Your task to perform on an android device: Clear the cart on costco. Add bose soundlink mini to the cart on costco, then select checkout. Image 0: 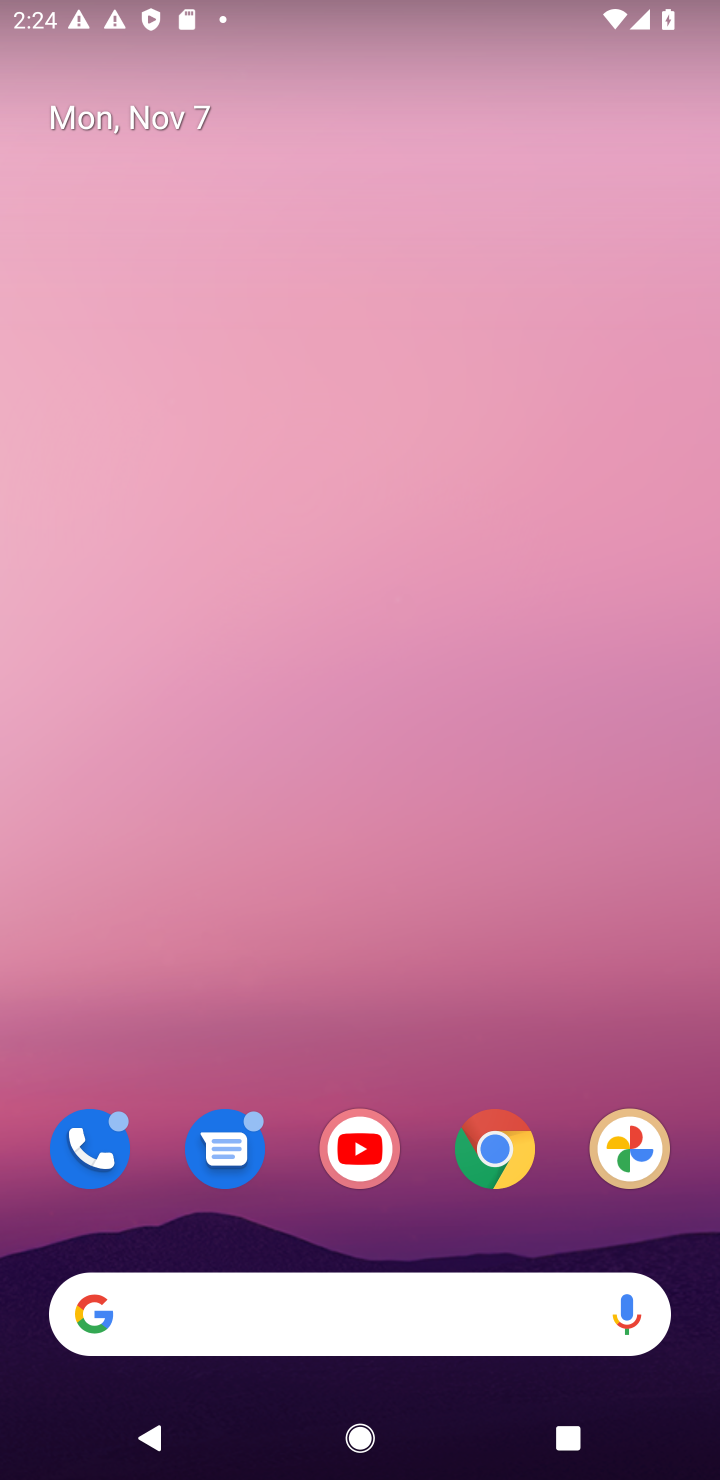
Step 0: click (515, 1132)
Your task to perform on an android device: Clear the cart on costco. Add bose soundlink mini to the cart on costco, then select checkout. Image 1: 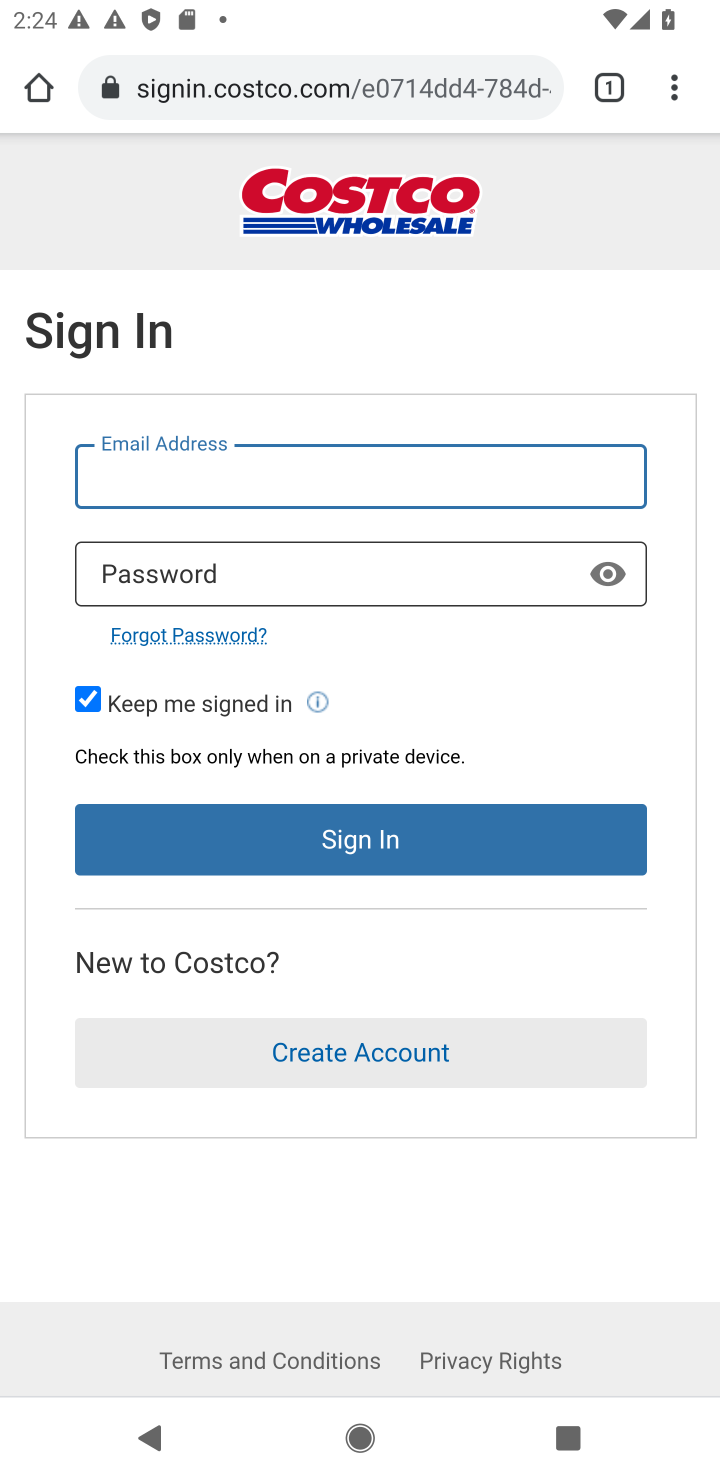
Step 1: click (285, 81)
Your task to perform on an android device: Clear the cart on costco. Add bose soundlink mini to the cart on costco, then select checkout. Image 2: 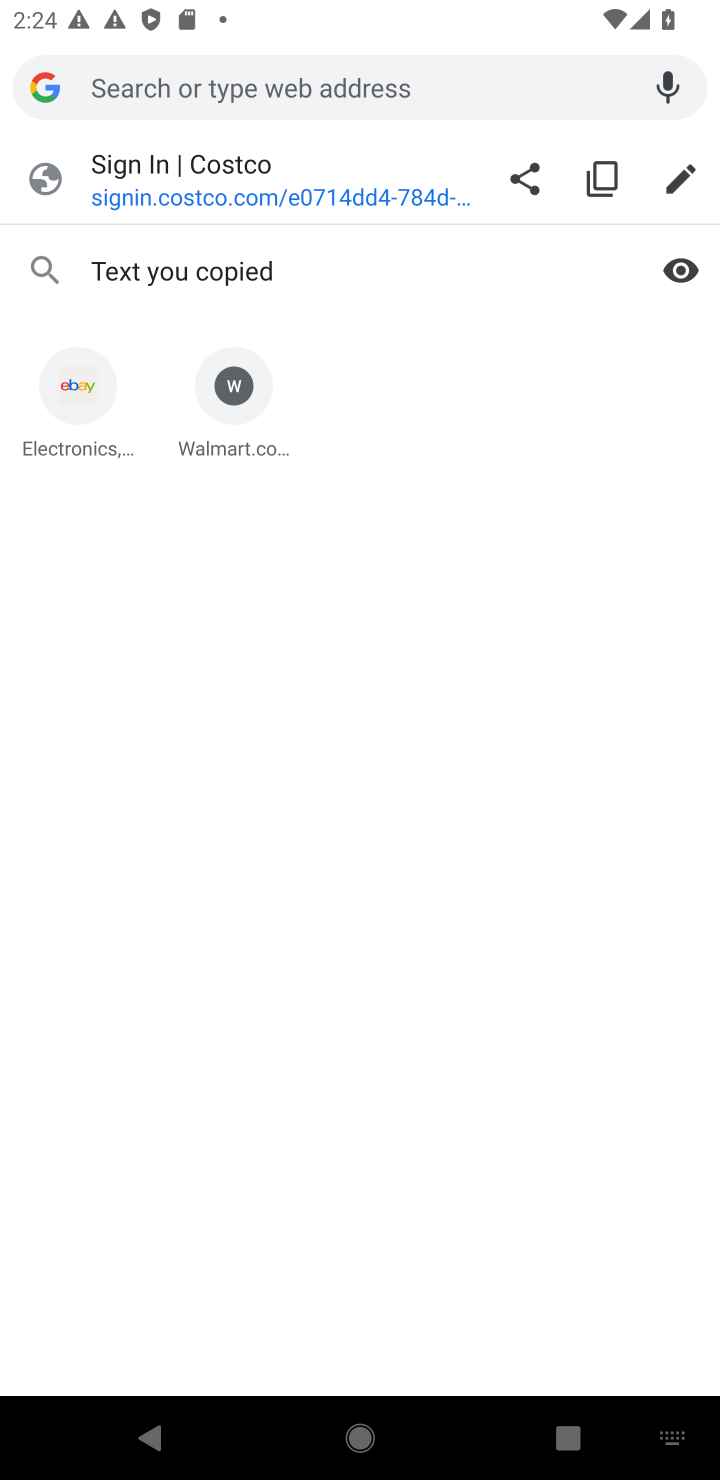
Step 2: type "costco"
Your task to perform on an android device: Clear the cart on costco. Add bose soundlink mini to the cart on costco, then select checkout. Image 3: 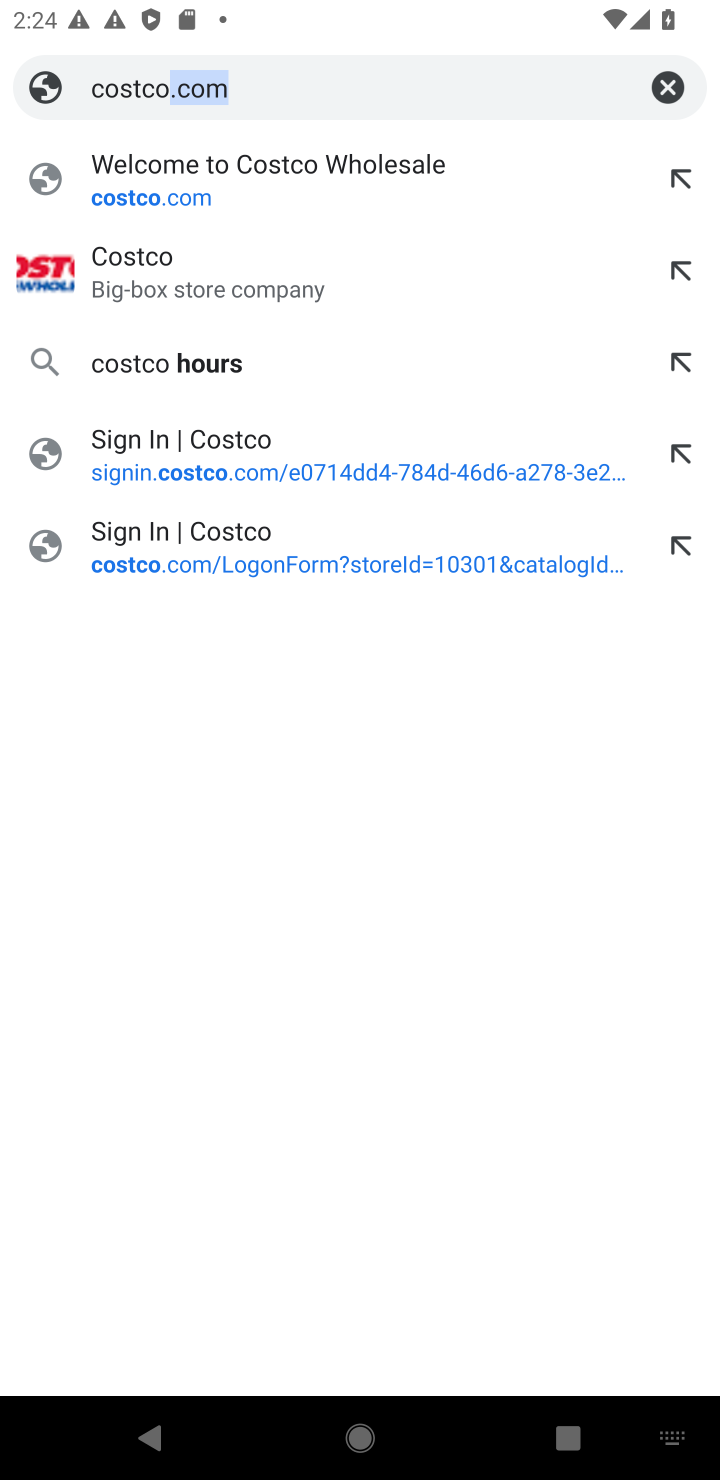
Step 3: click (127, 252)
Your task to perform on an android device: Clear the cart on costco. Add bose soundlink mini to the cart on costco, then select checkout. Image 4: 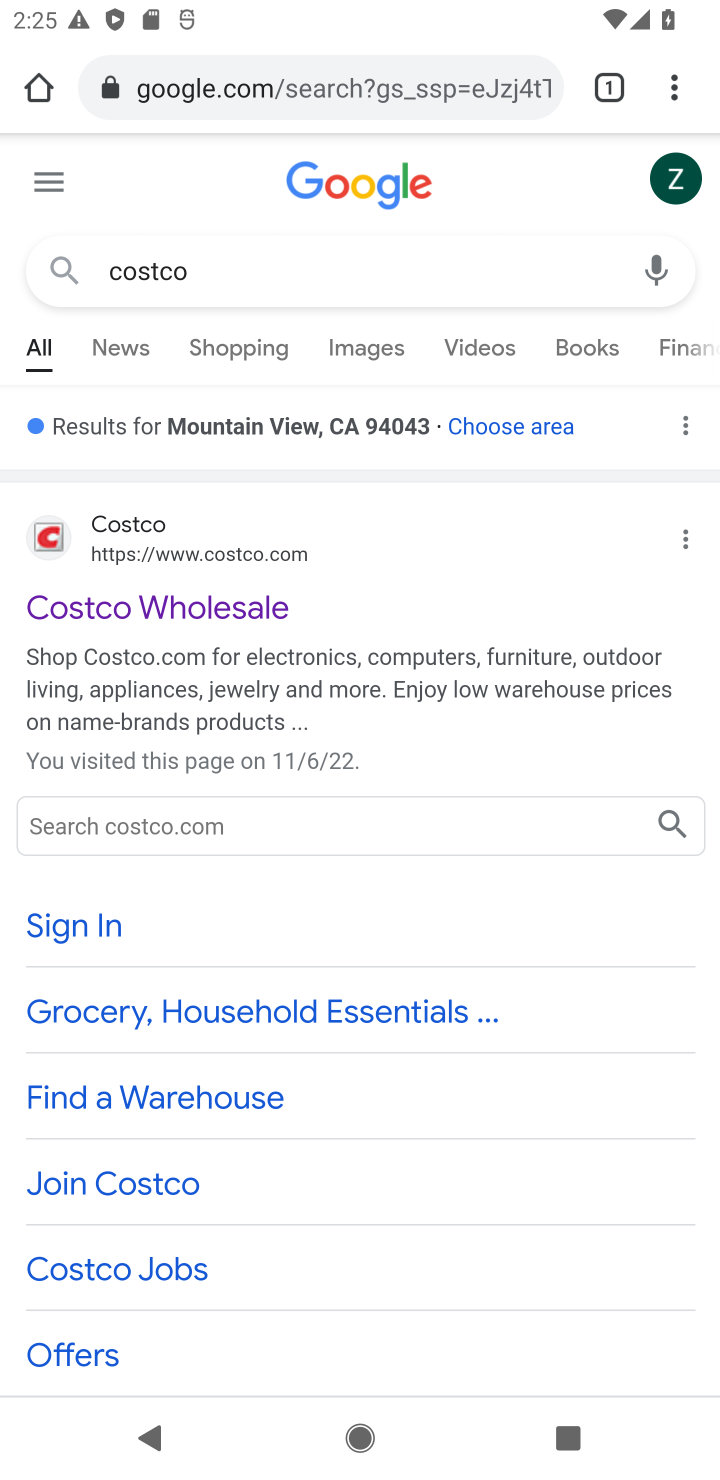
Step 4: click (127, 607)
Your task to perform on an android device: Clear the cart on costco. Add bose soundlink mini to the cart on costco, then select checkout. Image 5: 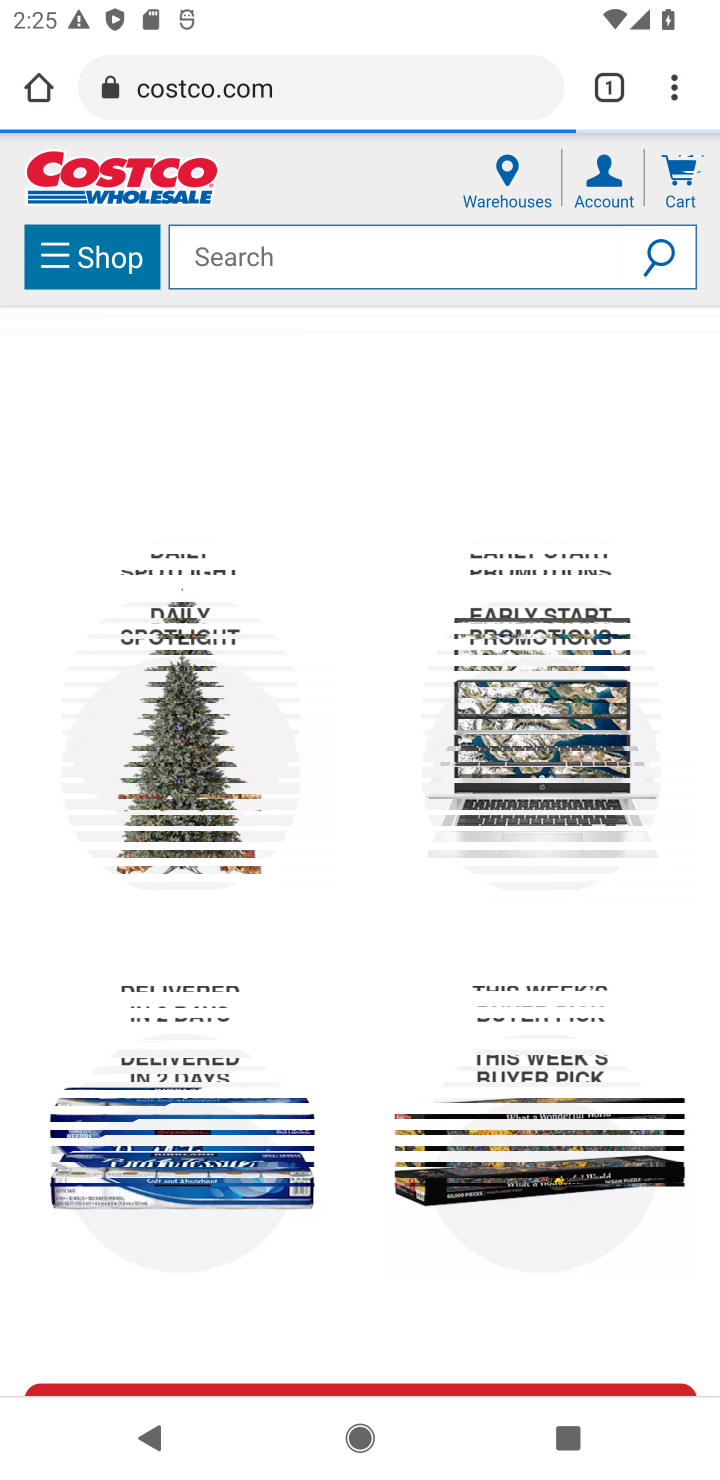
Step 5: click (211, 252)
Your task to perform on an android device: Clear the cart on costco. Add bose soundlink mini to the cart on costco, then select checkout. Image 6: 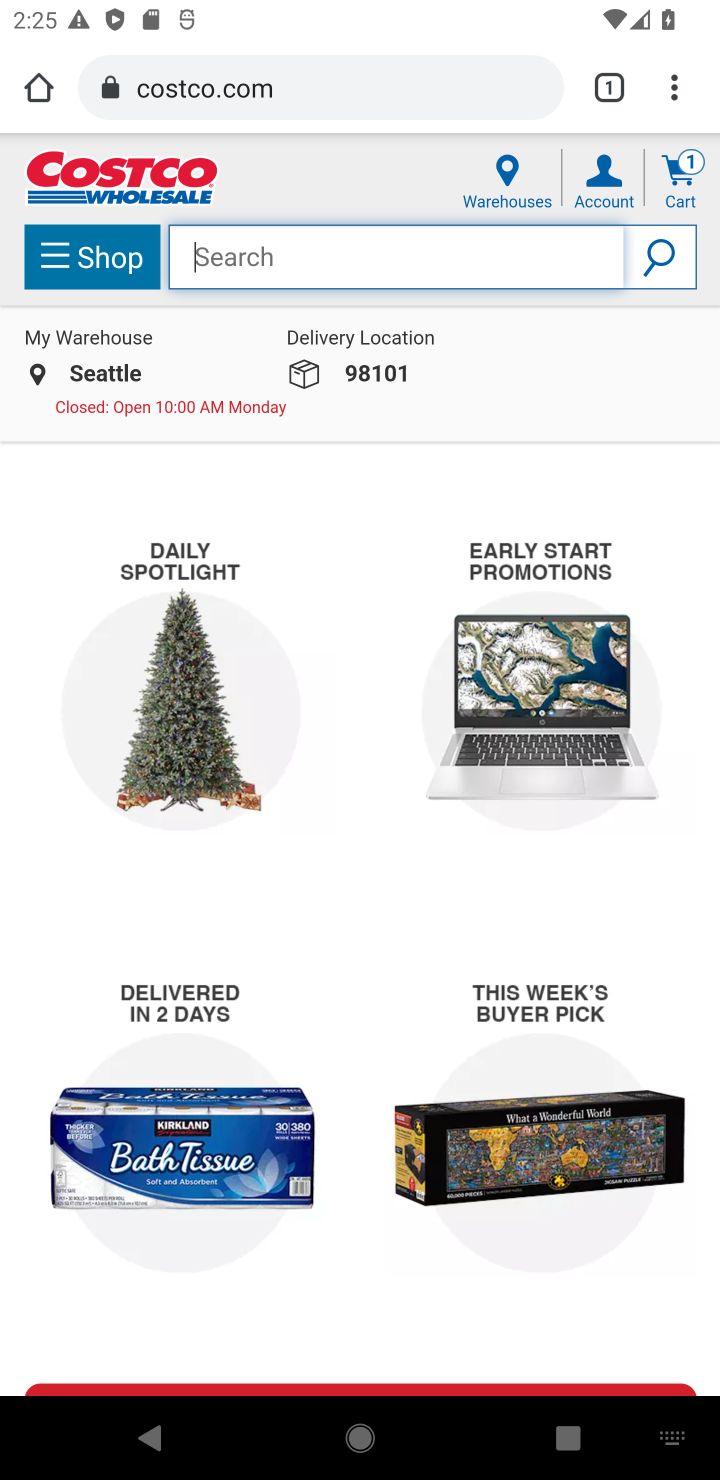
Step 6: type "bose soundlink mini "
Your task to perform on an android device: Clear the cart on costco. Add bose soundlink mini to the cart on costco, then select checkout. Image 7: 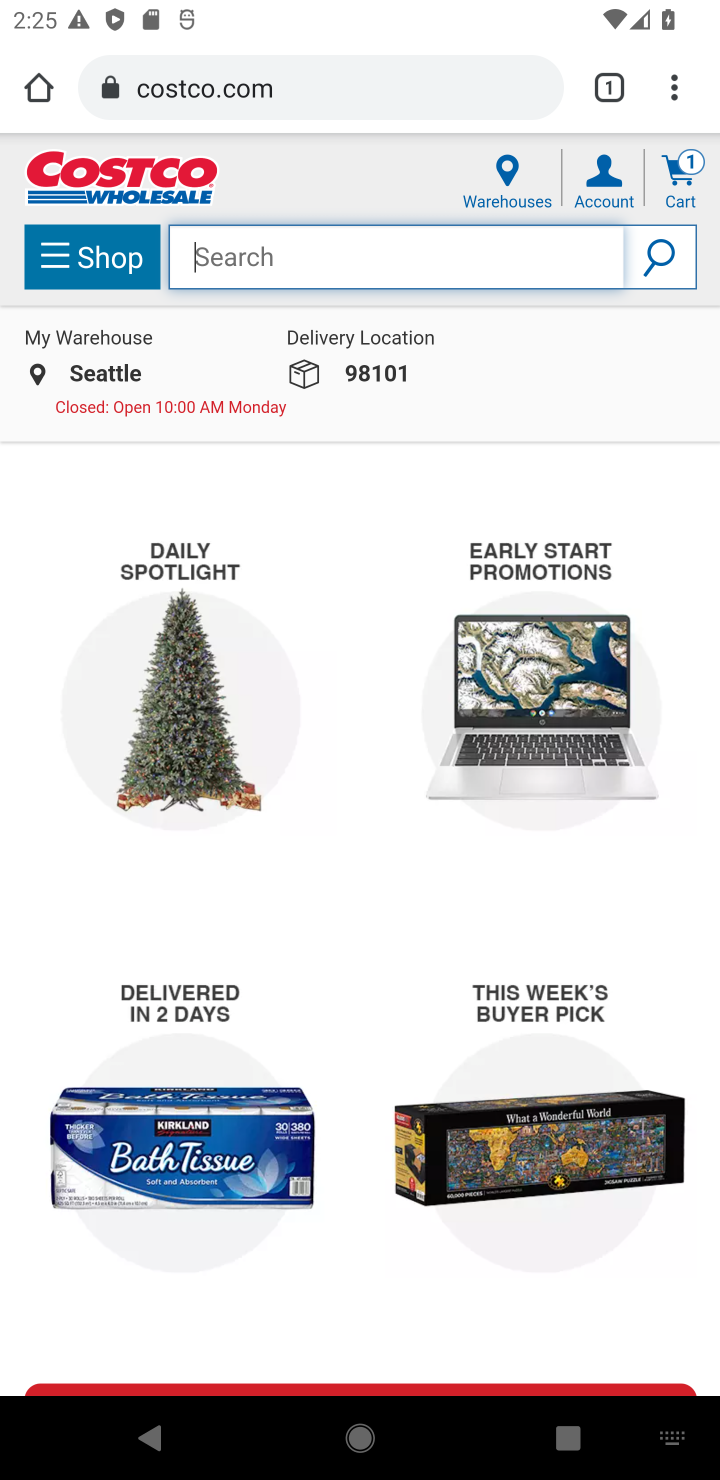
Step 7: click (677, 185)
Your task to perform on an android device: Clear the cart on costco. Add bose soundlink mini to the cart on costco, then select checkout. Image 8: 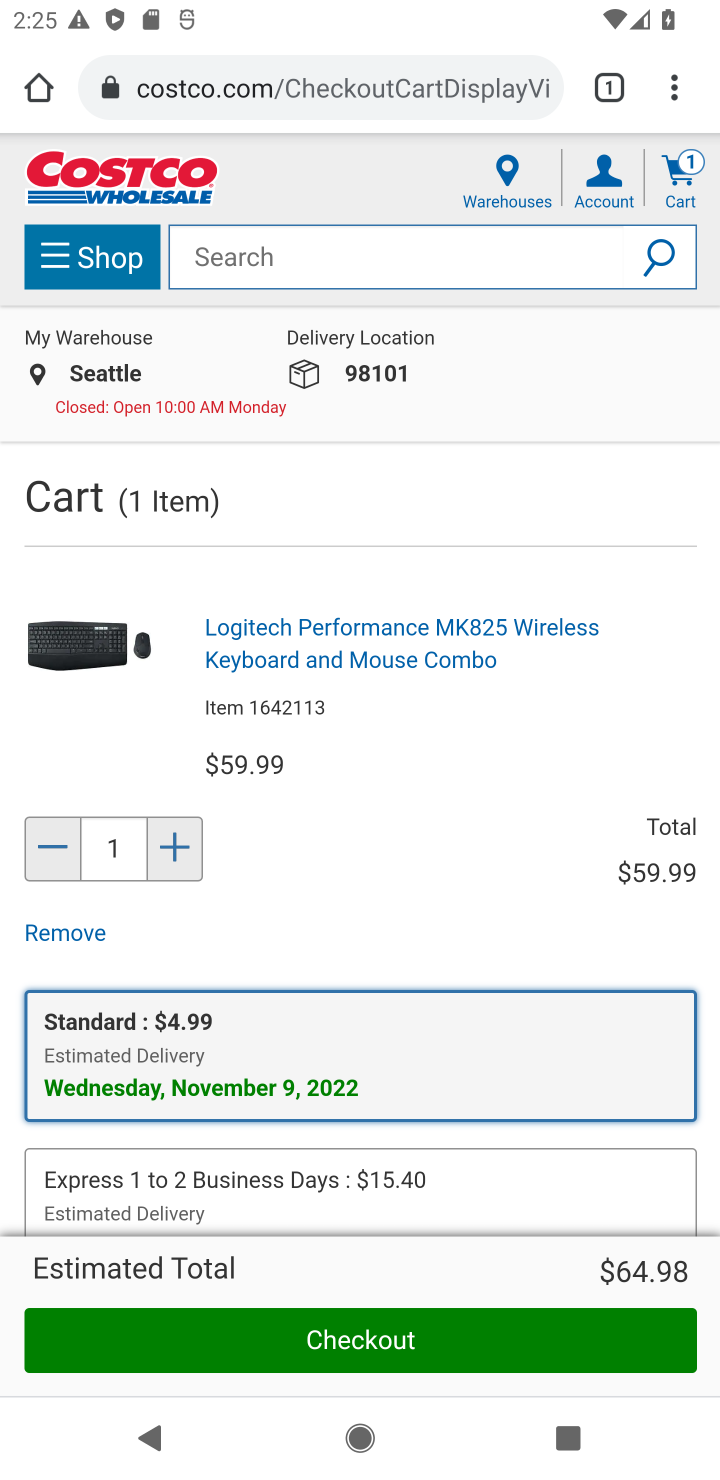
Step 8: click (339, 255)
Your task to perform on an android device: Clear the cart on costco. Add bose soundlink mini to the cart on costco, then select checkout. Image 9: 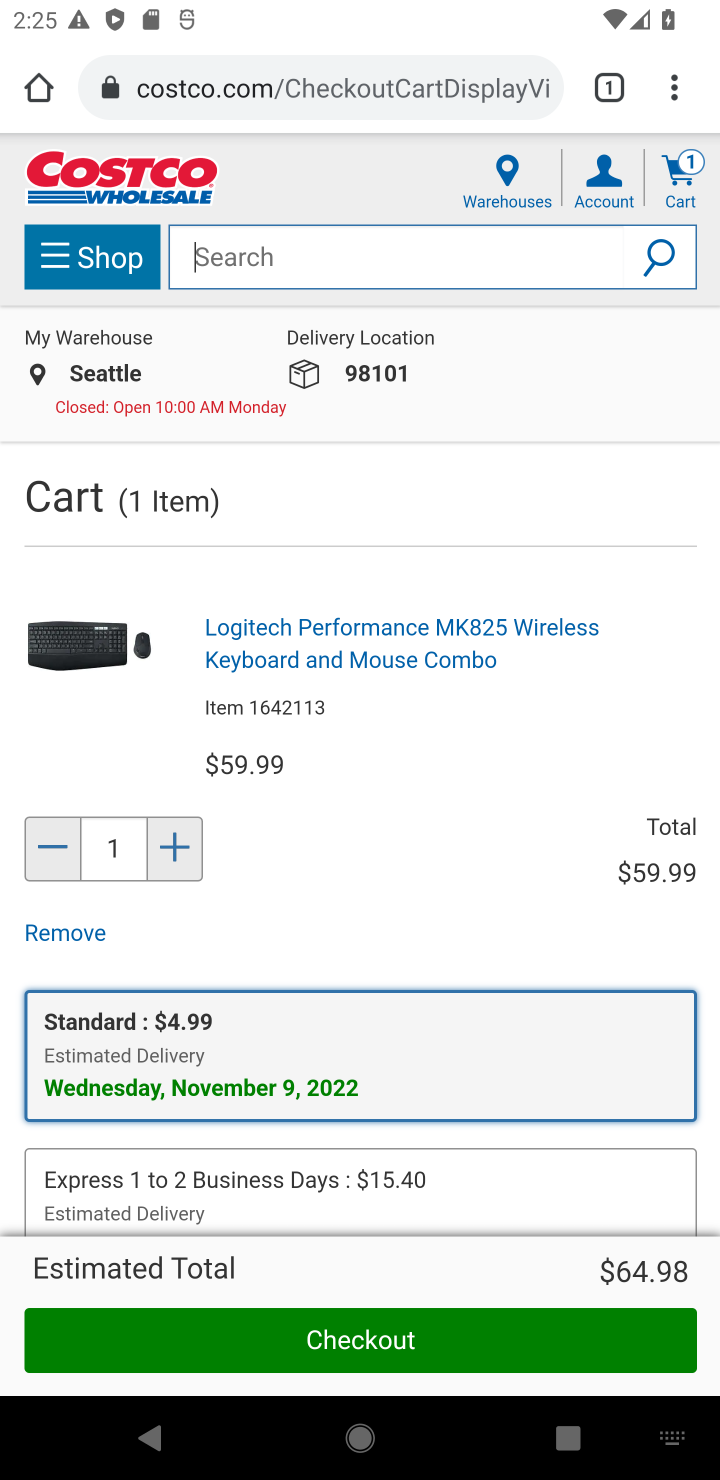
Step 9: click (243, 263)
Your task to perform on an android device: Clear the cart on costco. Add bose soundlink mini to the cart on costco, then select checkout. Image 10: 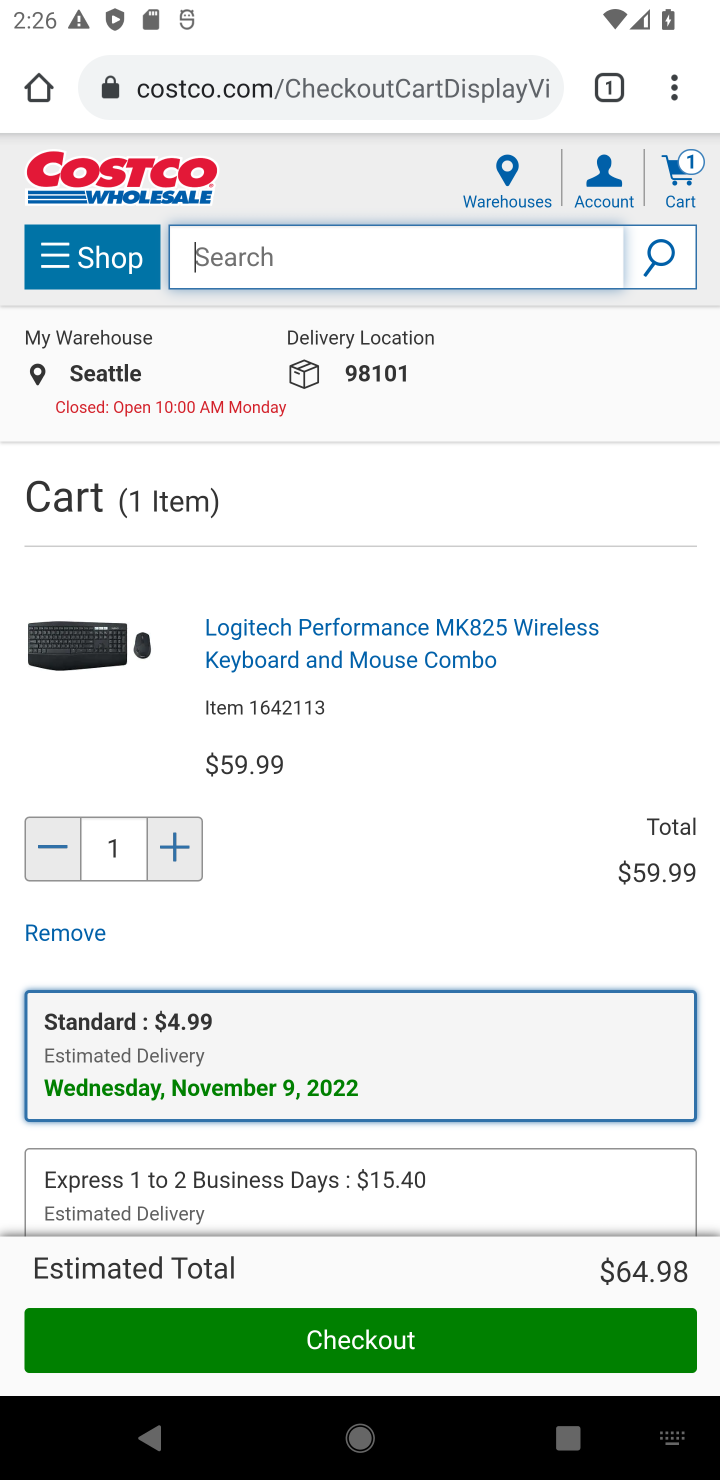
Step 10: click (54, 928)
Your task to perform on an android device: Clear the cart on costco. Add bose soundlink mini to the cart on costco, then select checkout. Image 11: 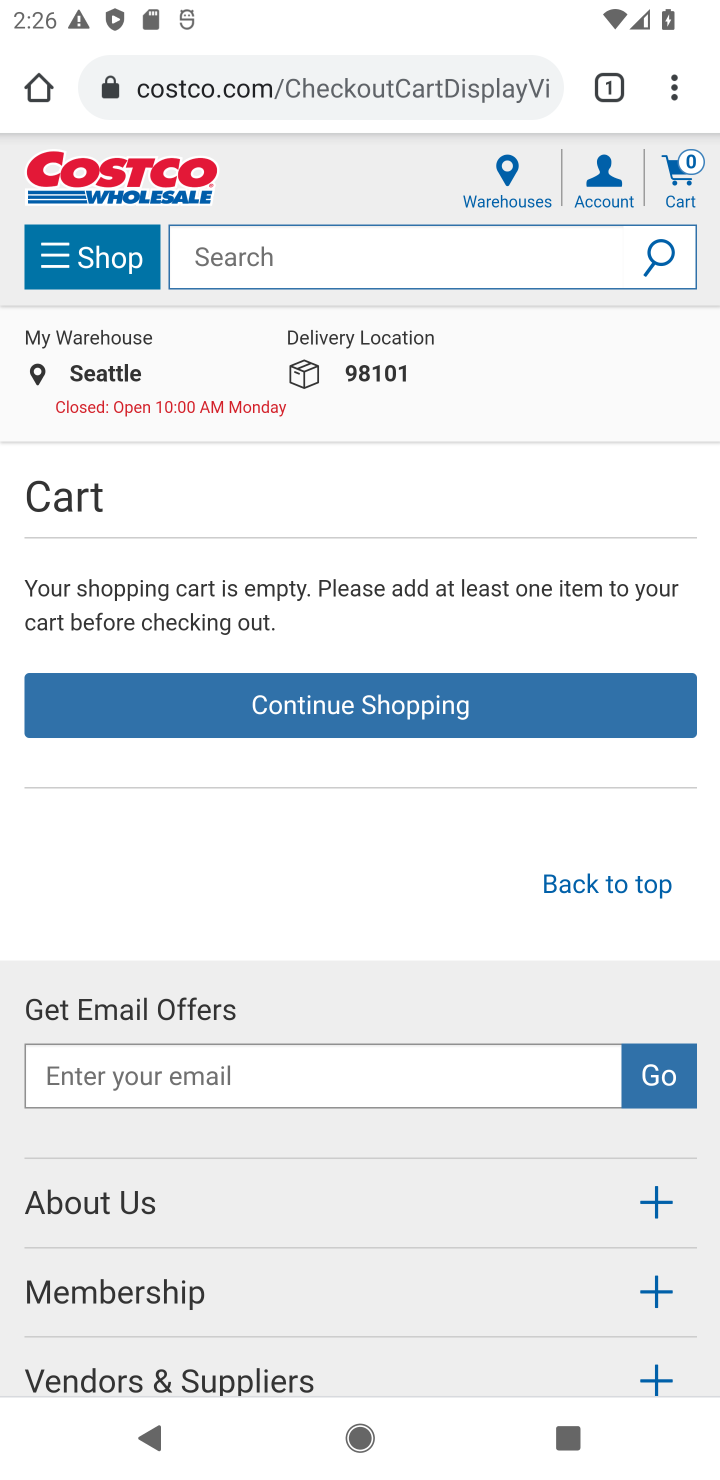
Step 11: click (287, 268)
Your task to perform on an android device: Clear the cart on costco. Add bose soundlink mini to the cart on costco, then select checkout. Image 12: 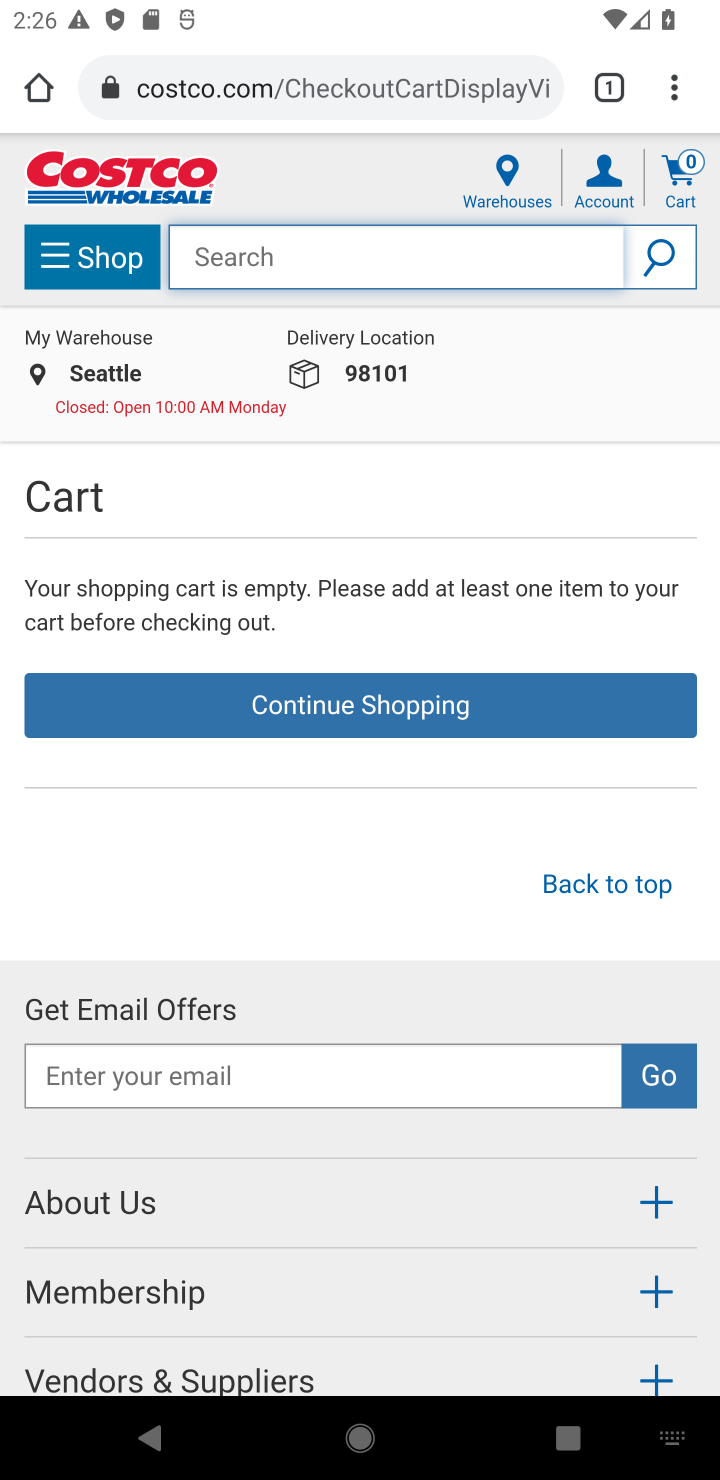
Step 12: type "bose soundlink mini "
Your task to perform on an android device: Clear the cart on costco. Add bose soundlink mini to the cart on costco, then select checkout. Image 13: 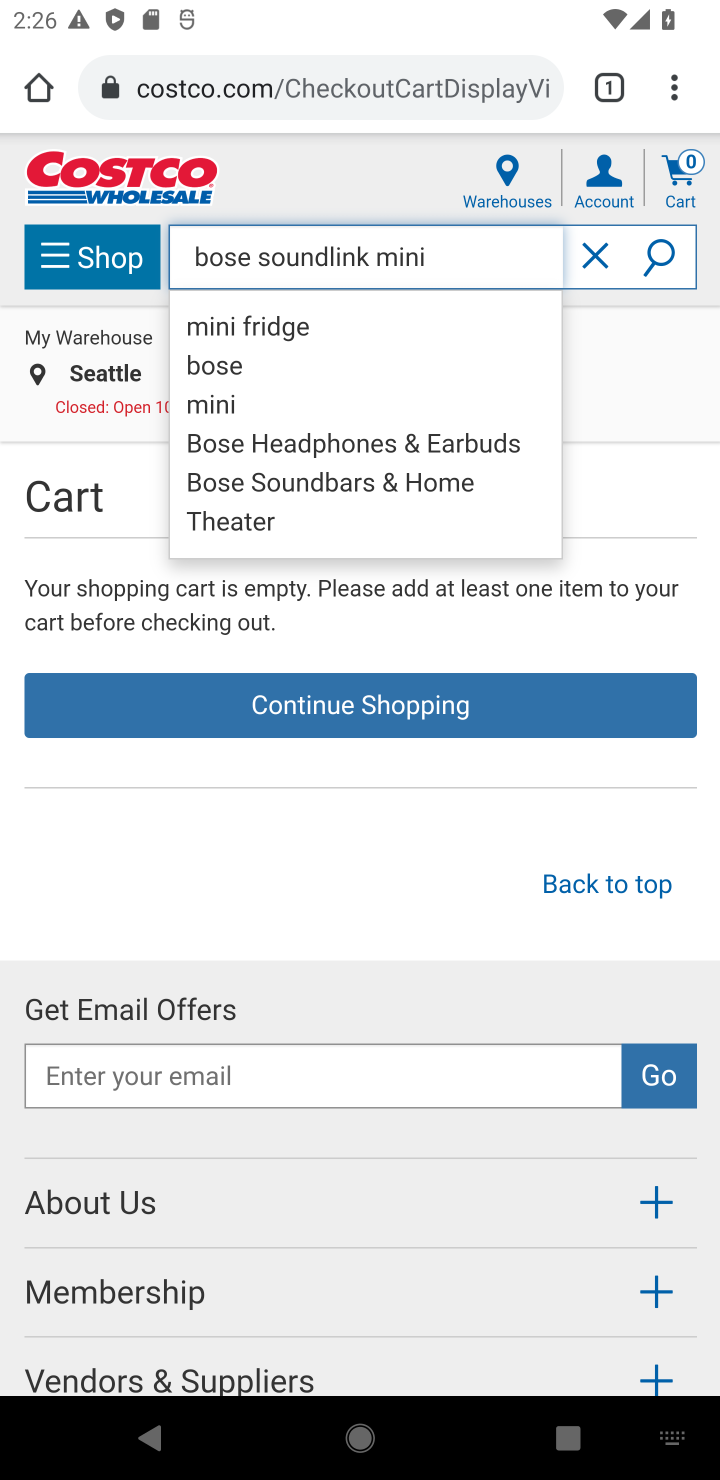
Step 13: click (660, 250)
Your task to perform on an android device: Clear the cart on costco. Add bose soundlink mini to the cart on costco, then select checkout. Image 14: 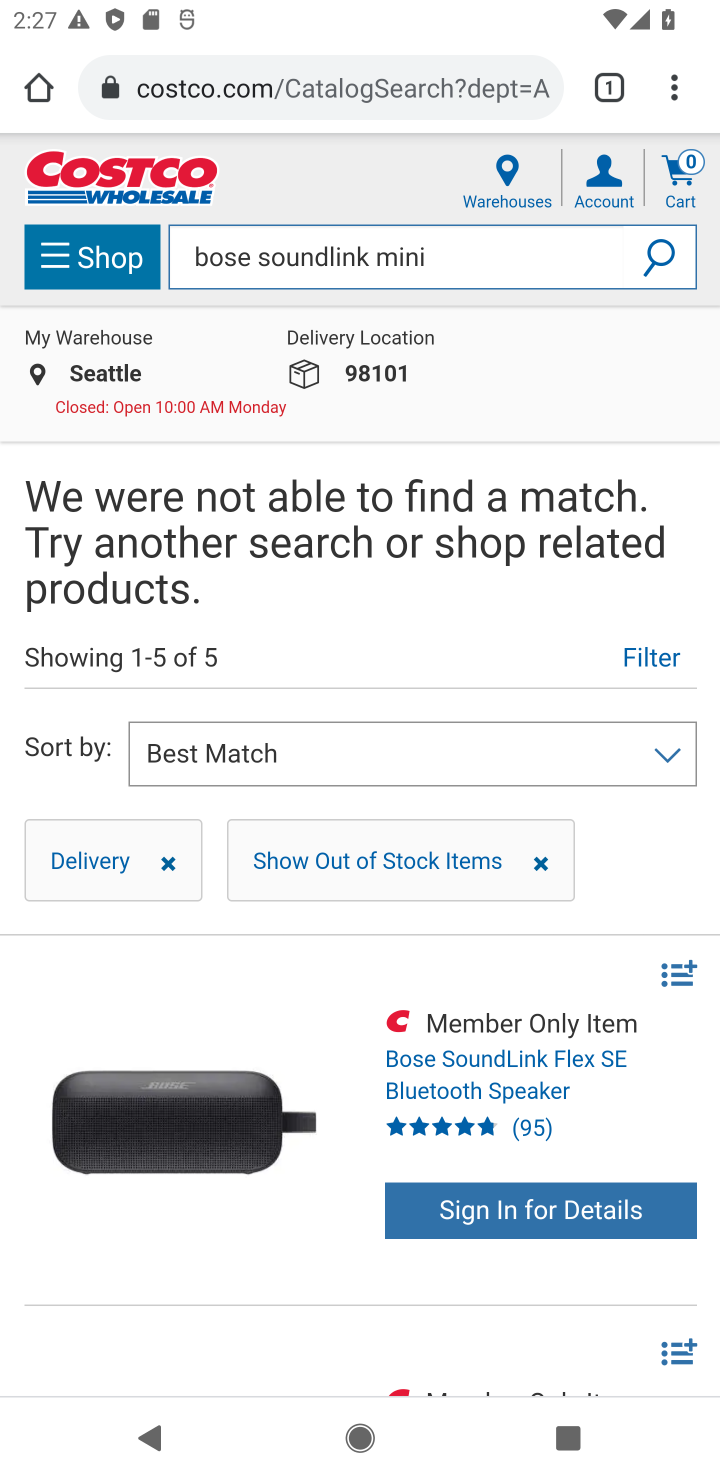
Step 14: drag from (298, 1053) to (298, 157)
Your task to perform on an android device: Clear the cart on costco. Add bose soundlink mini to the cart on costco, then select checkout. Image 15: 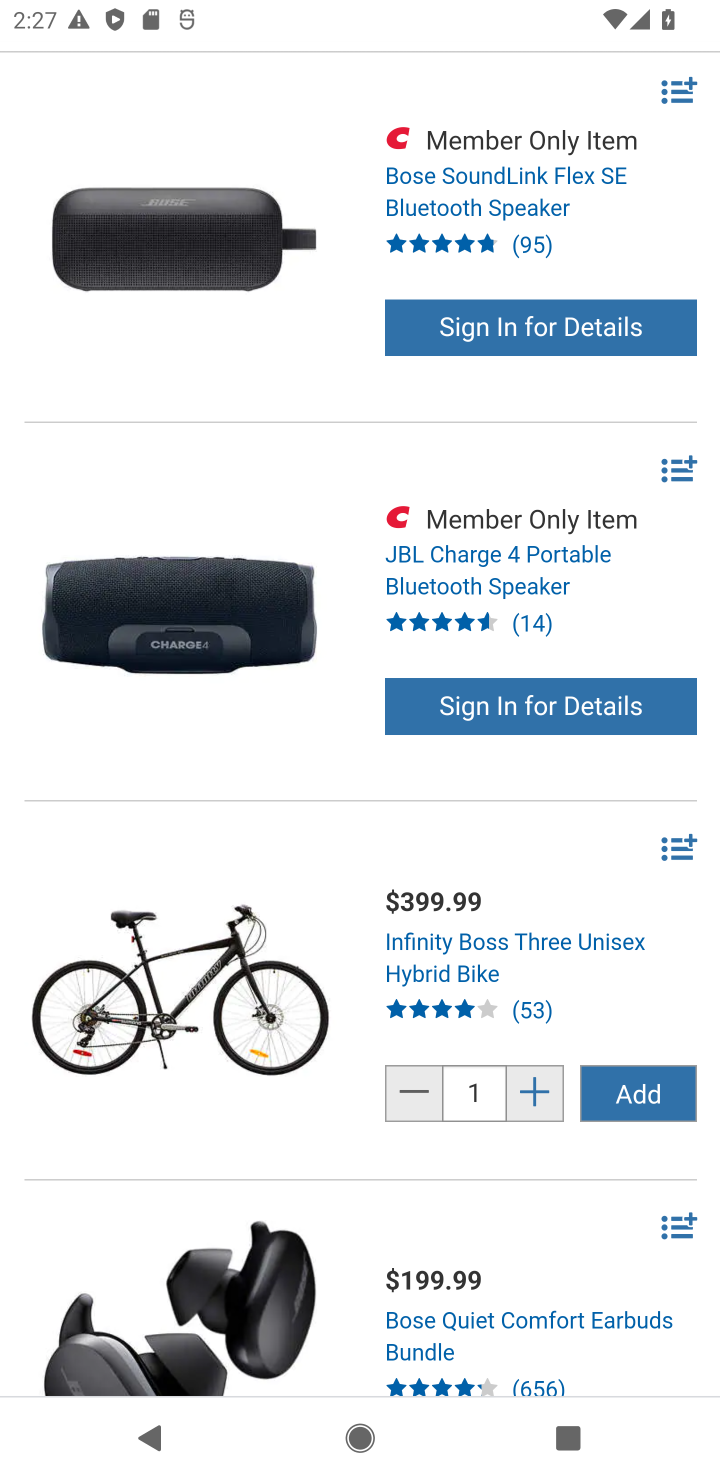
Step 15: click (272, 585)
Your task to perform on an android device: Clear the cart on costco. Add bose soundlink mini to the cart on costco, then select checkout. Image 16: 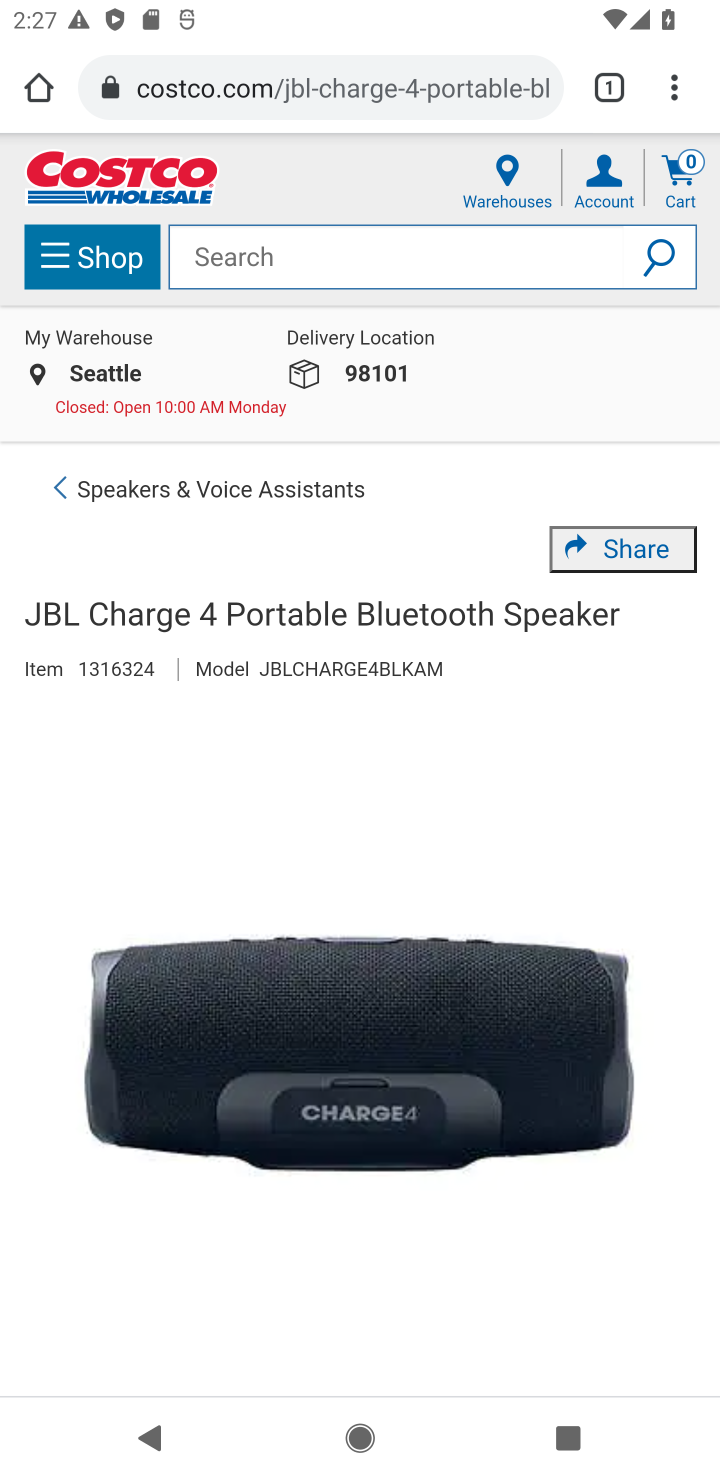
Step 16: drag from (237, 1168) to (161, 599)
Your task to perform on an android device: Clear the cart on costco. Add bose soundlink mini to the cart on costco, then select checkout. Image 17: 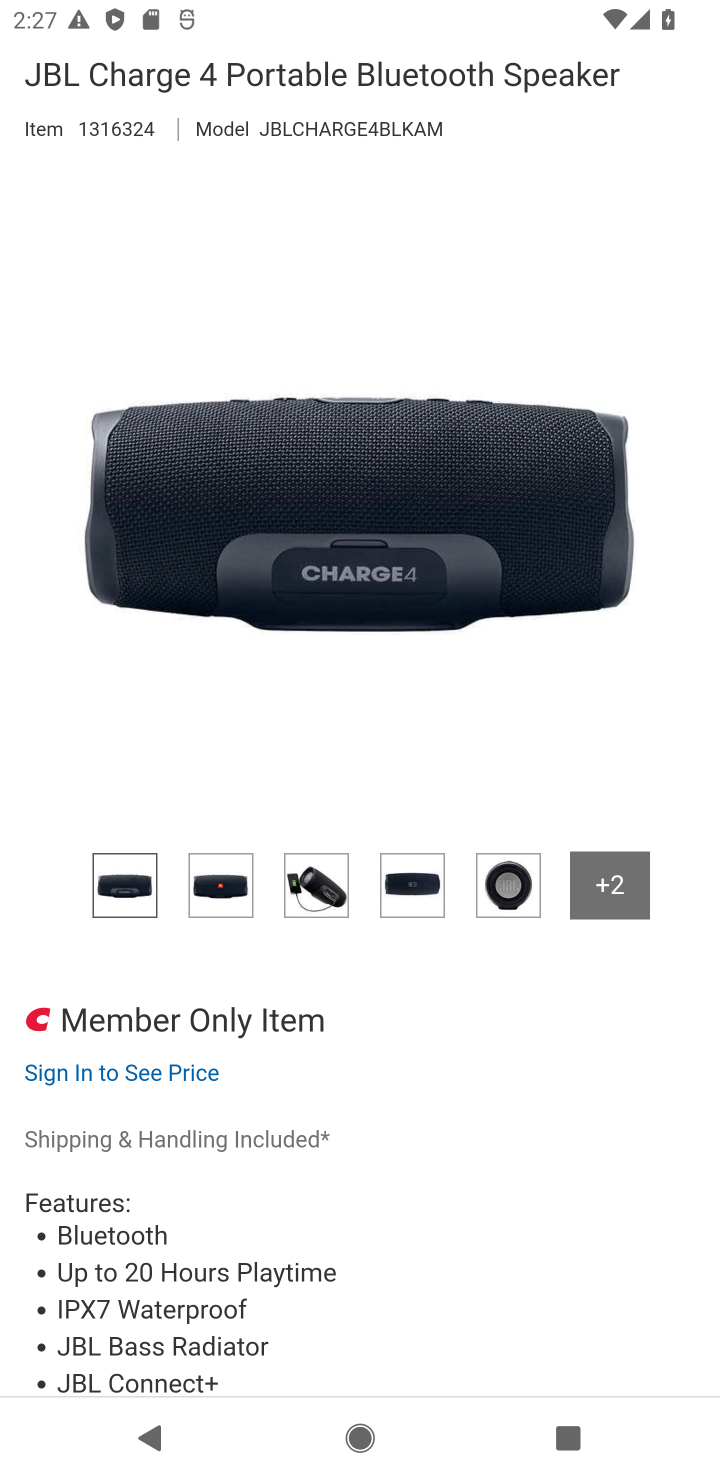
Step 17: drag from (370, 1039) to (398, 425)
Your task to perform on an android device: Clear the cart on costco. Add bose soundlink mini to the cart on costco, then select checkout. Image 18: 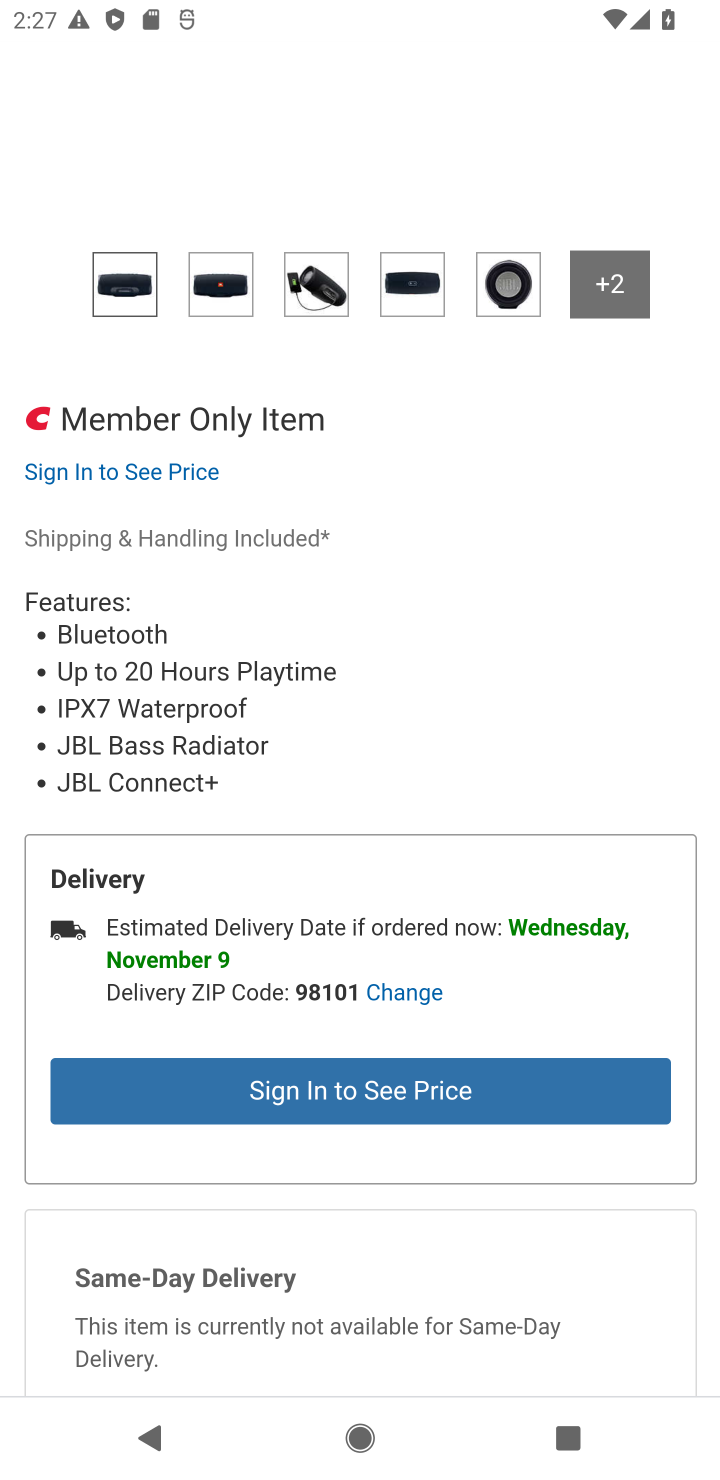
Step 18: drag from (253, 898) to (369, 245)
Your task to perform on an android device: Clear the cart on costco. Add bose soundlink mini to the cart on costco, then select checkout. Image 19: 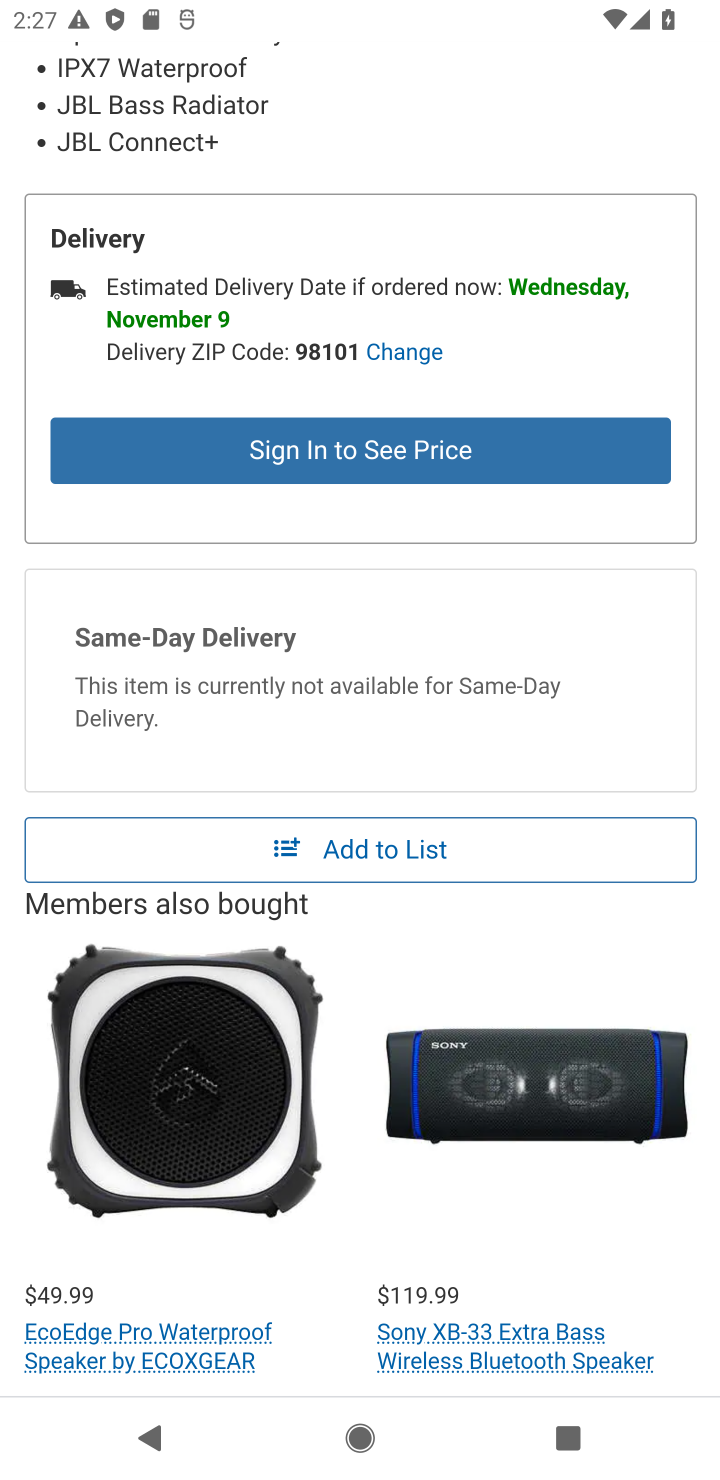
Step 19: click (376, 843)
Your task to perform on an android device: Clear the cart on costco. Add bose soundlink mini to the cart on costco, then select checkout. Image 20: 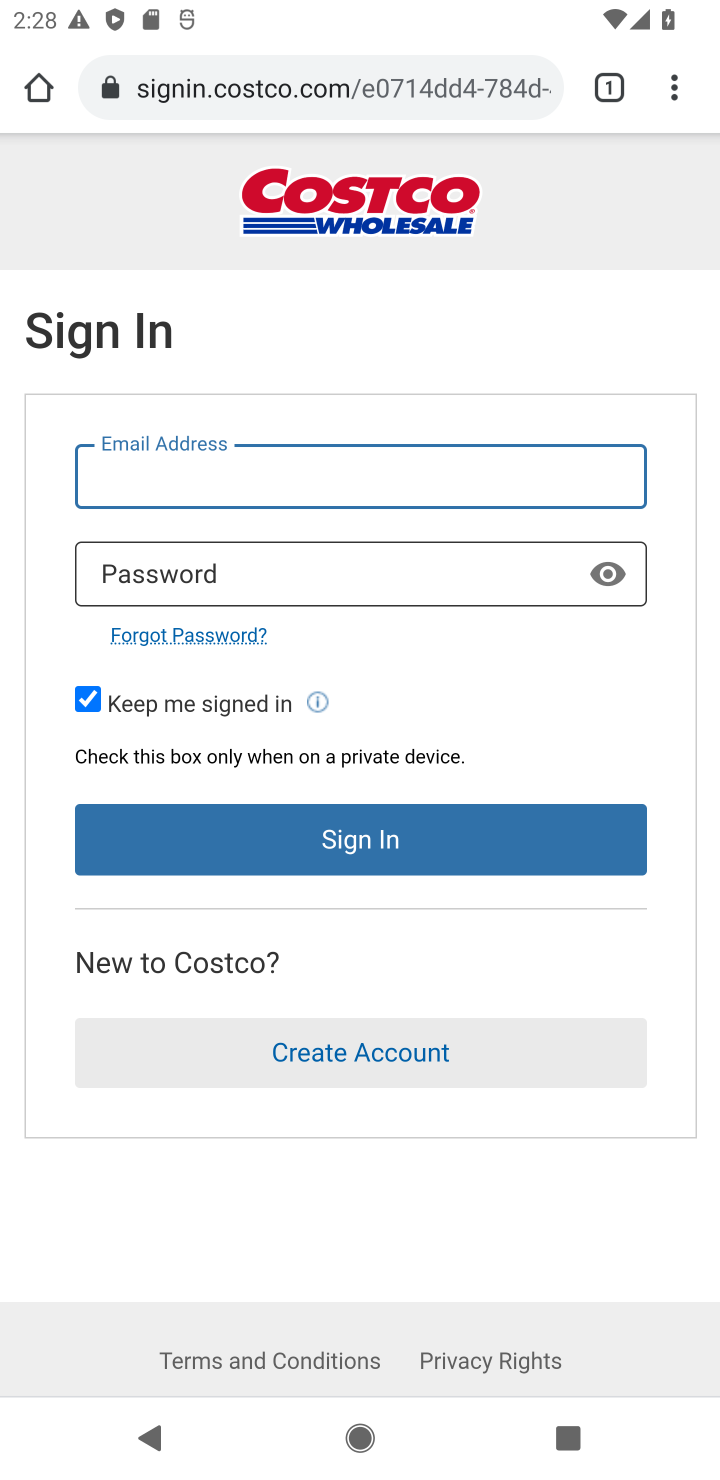
Step 20: task complete